Your task to perform on an android device: turn pop-ups on in chrome Image 0: 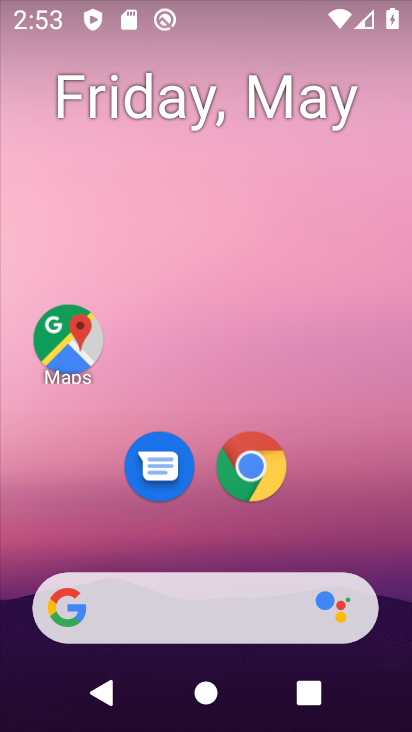
Step 0: click (245, 462)
Your task to perform on an android device: turn pop-ups on in chrome Image 1: 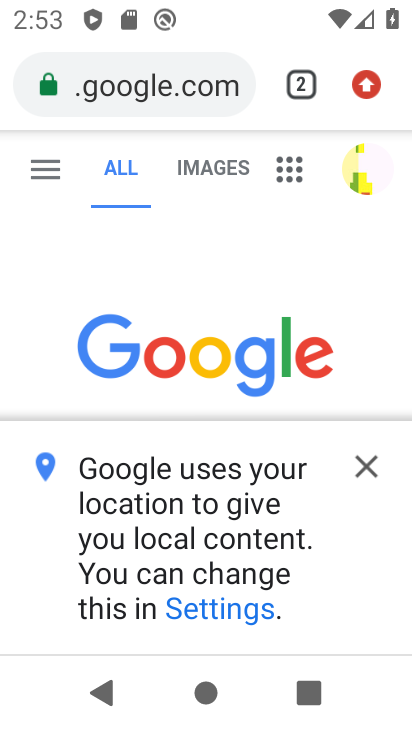
Step 1: click (371, 90)
Your task to perform on an android device: turn pop-ups on in chrome Image 2: 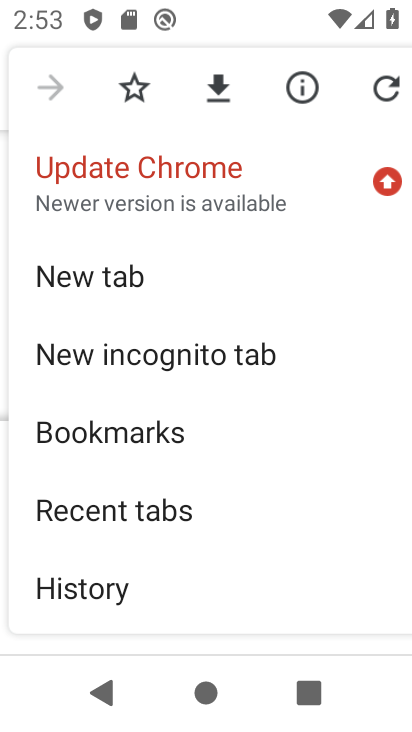
Step 2: drag from (196, 539) to (186, 315)
Your task to perform on an android device: turn pop-ups on in chrome Image 3: 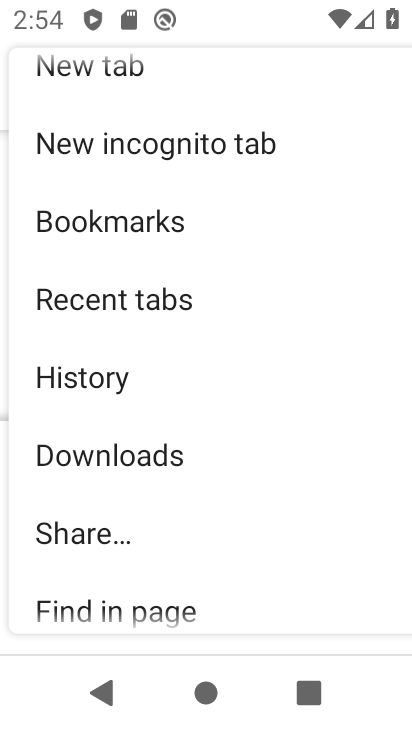
Step 3: drag from (165, 517) to (171, 288)
Your task to perform on an android device: turn pop-ups on in chrome Image 4: 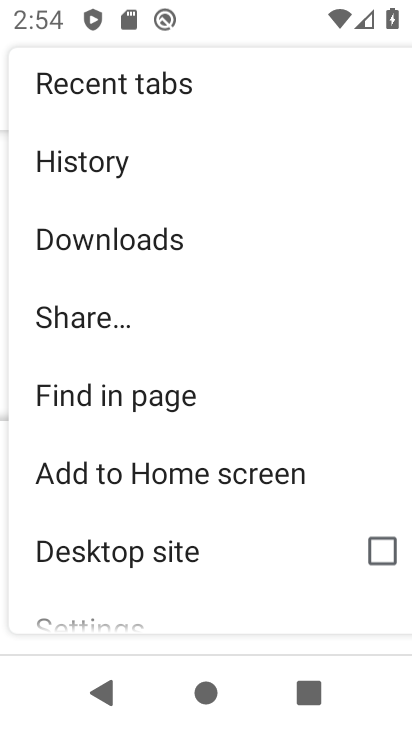
Step 4: drag from (172, 576) to (171, 383)
Your task to perform on an android device: turn pop-ups on in chrome Image 5: 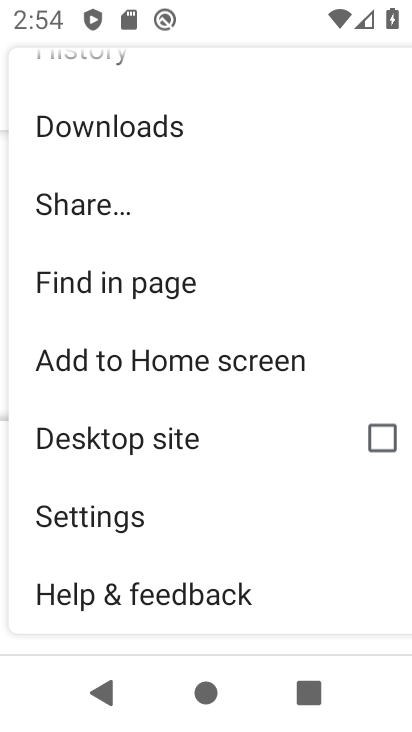
Step 5: click (118, 517)
Your task to perform on an android device: turn pop-ups on in chrome Image 6: 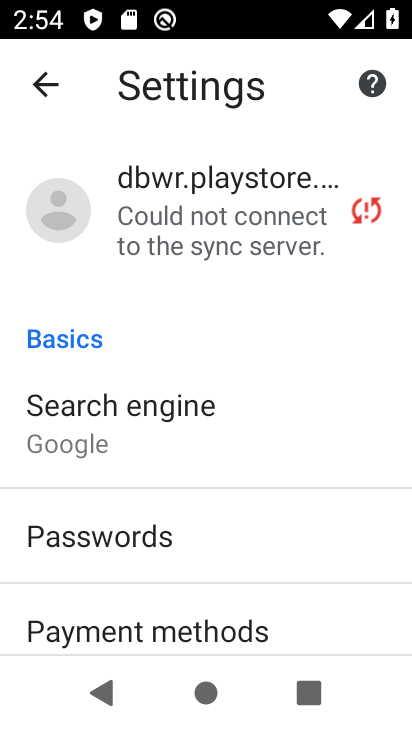
Step 6: drag from (198, 566) to (224, 340)
Your task to perform on an android device: turn pop-ups on in chrome Image 7: 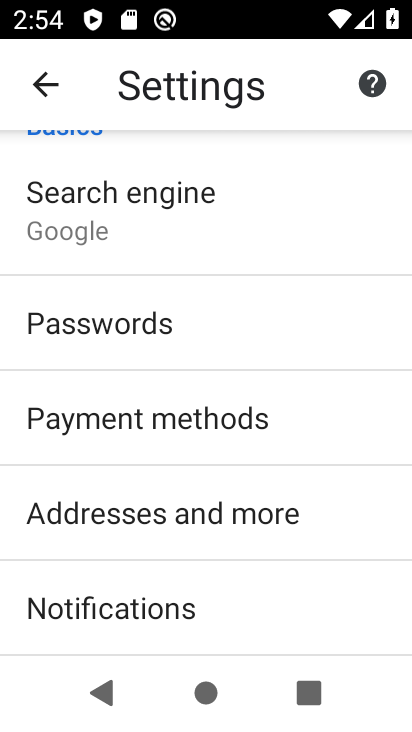
Step 7: drag from (237, 609) to (234, 342)
Your task to perform on an android device: turn pop-ups on in chrome Image 8: 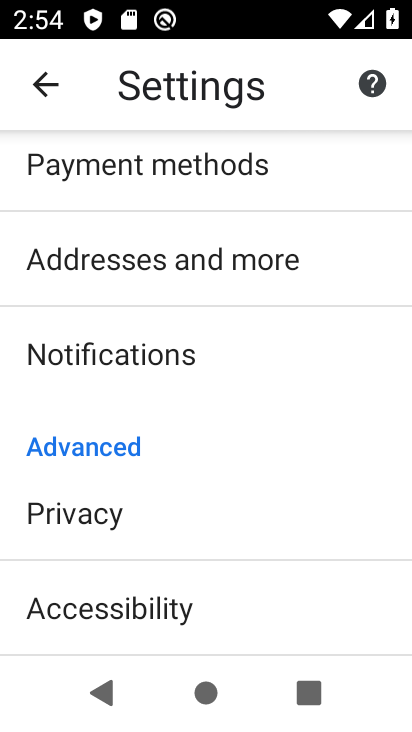
Step 8: drag from (240, 613) to (227, 347)
Your task to perform on an android device: turn pop-ups on in chrome Image 9: 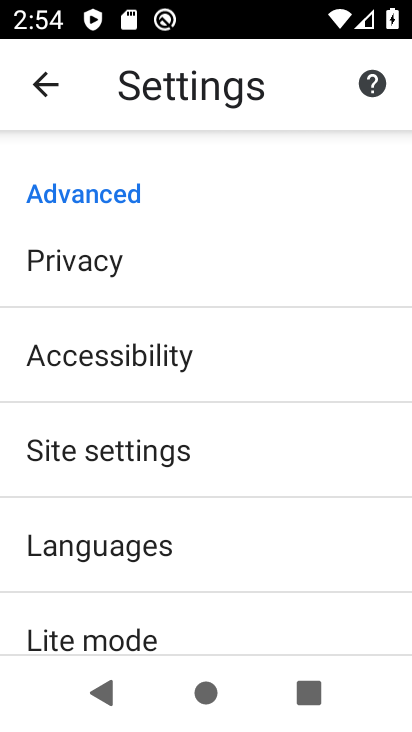
Step 9: click (104, 457)
Your task to perform on an android device: turn pop-ups on in chrome Image 10: 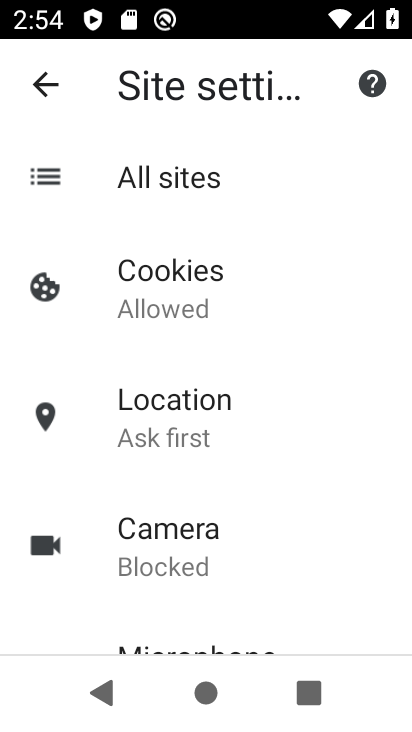
Step 10: drag from (221, 554) to (203, 178)
Your task to perform on an android device: turn pop-ups on in chrome Image 11: 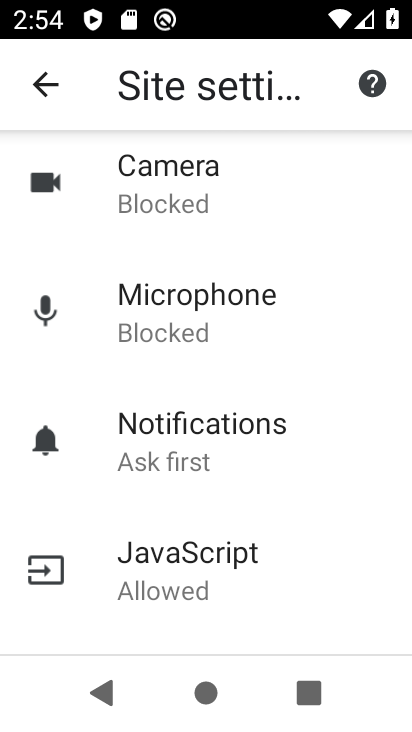
Step 11: drag from (232, 562) to (218, 334)
Your task to perform on an android device: turn pop-ups on in chrome Image 12: 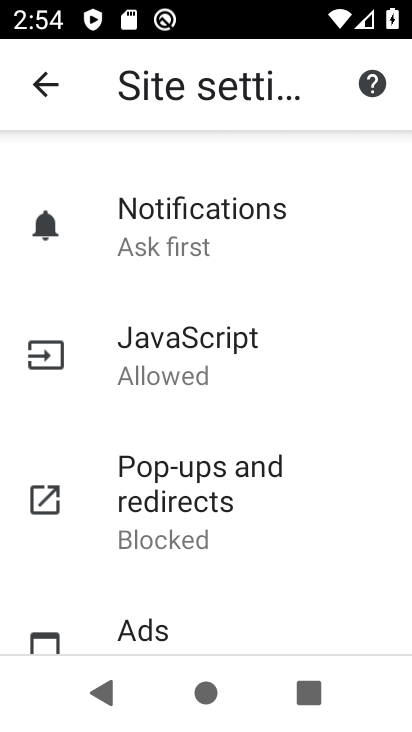
Step 12: click (226, 517)
Your task to perform on an android device: turn pop-ups on in chrome Image 13: 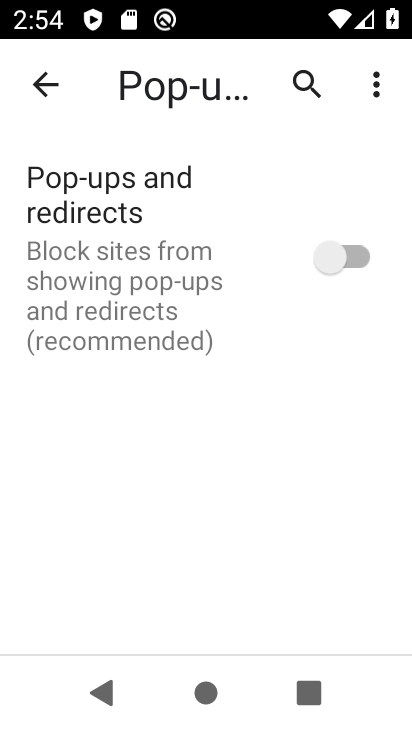
Step 13: click (337, 261)
Your task to perform on an android device: turn pop-ups on in chrome Image 14: 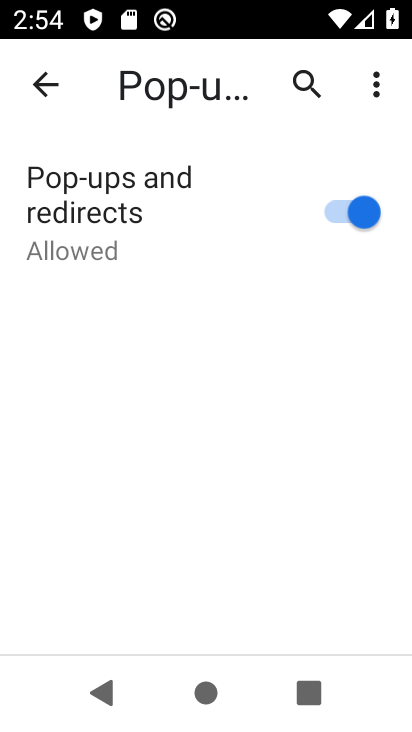
Step 14: task complete